Your task to perform on an android device: turn off airplane mode Image 0: 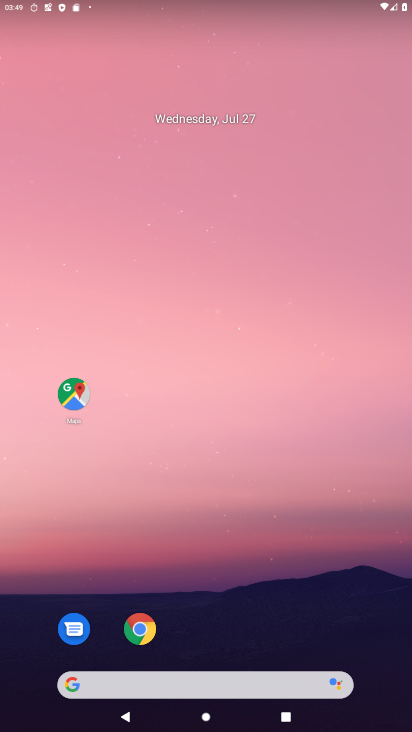
Step 0: drag from (333, 566) to (258, 70)
Your task to perform on an android device: turn off airplane mode Image 1: 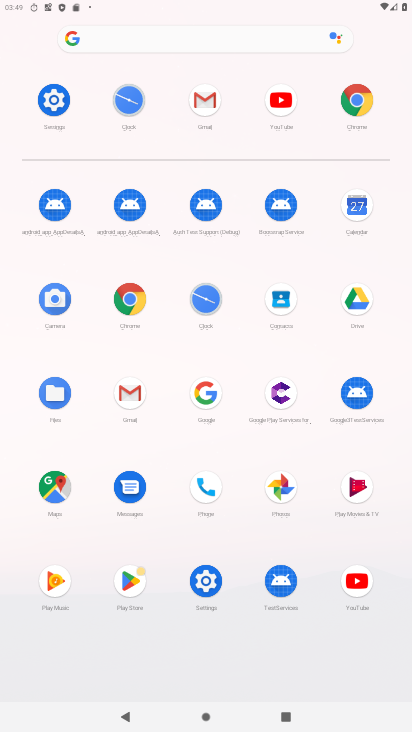
Step 1: click (58, 101)
Your task to perform on an android device: turn off airplane mode Image 2: 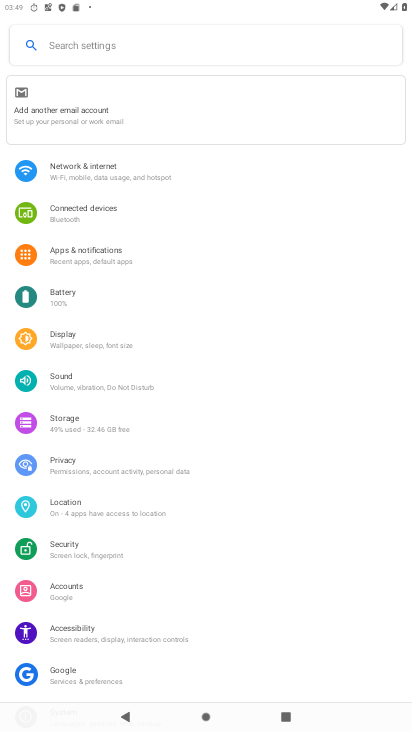
Step 2: click (111, 180)
Your task to perform on an android device: turn off airplane mode Image 3: 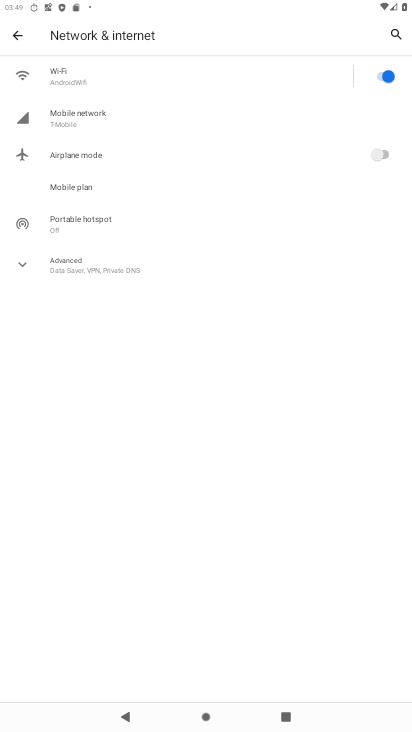
Step 3: task complete